Your task to perform on an android device: turn on the 12-hour format for clock Image 0: 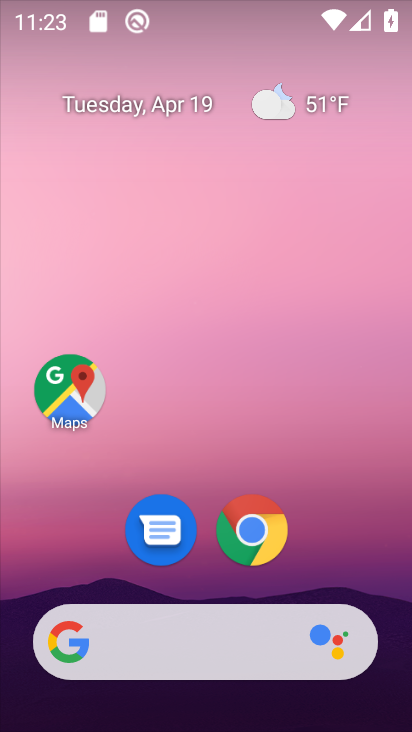
Step 0: drag from (193, 588) to (282, 84)
Your task to perform on an android device: turn on the 12-hour format for clock Image 1: 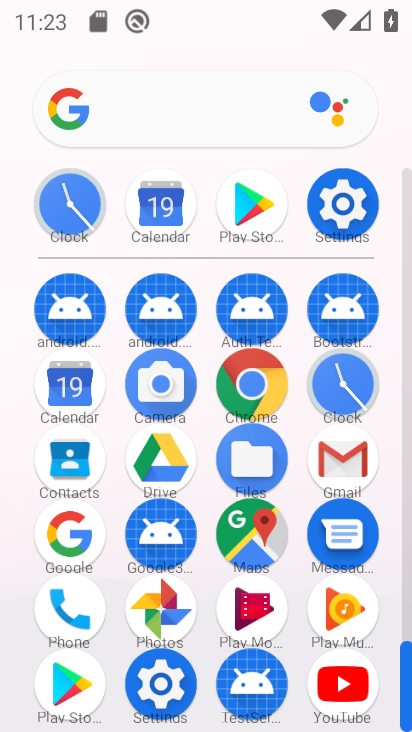
Step 1: click (344, 384)
Your task to perform on an android device: turn on the 12-hour format for clock Image 2: 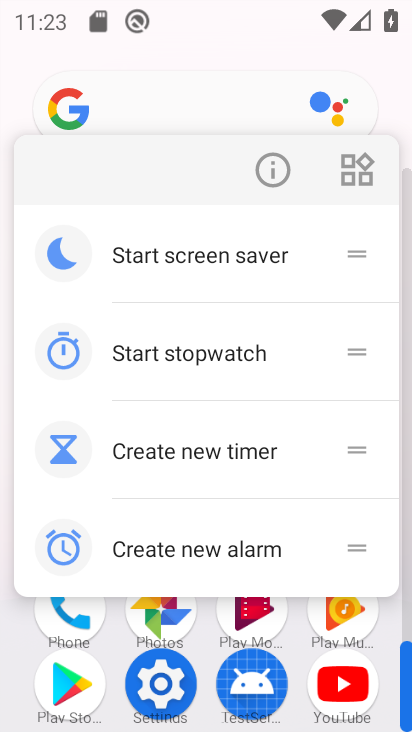
Step 2: drag from (200, 604) to (269, 374)
Your task to perform on an android device: turn on the 12-hour format for clock Image 3: 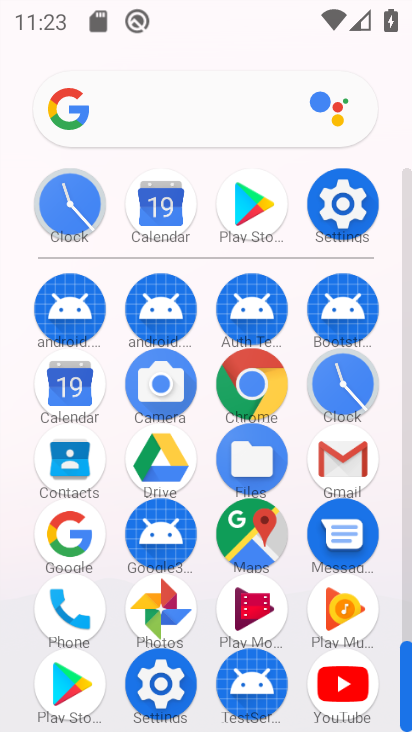
Step 3: click (340, 383)
Your task to perform on an android device: turn on the 12-hour format for clock Image 4: 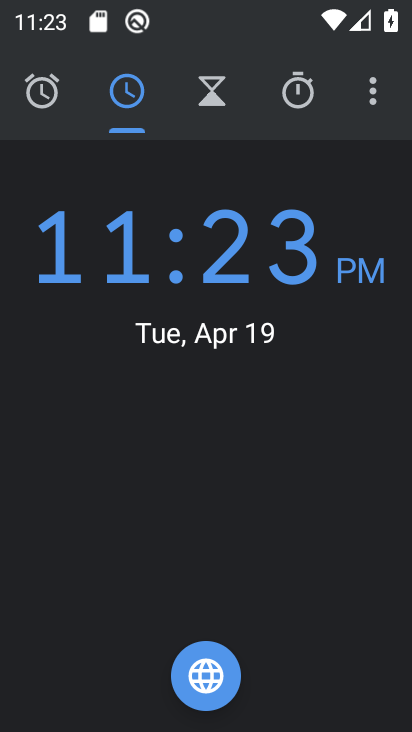
Step 4: click (373, 94)
Your task to perform on an android device: turn on the 12-hour format for clock Image 5: 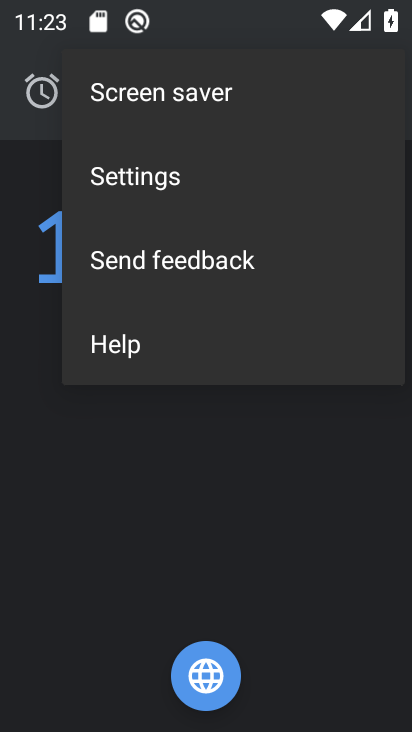
Step 5: click (162, 174)
Your task to perform on an android device: turn on the 12-hour format for clock Image 6: 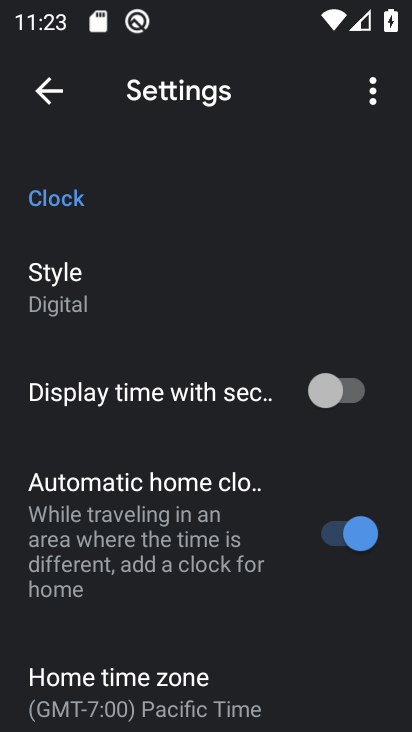
Step 6: drag from (195, 613) to (327, 207)
Your task to perform on an android device: turn on the 12-hour format for clock Image 7: 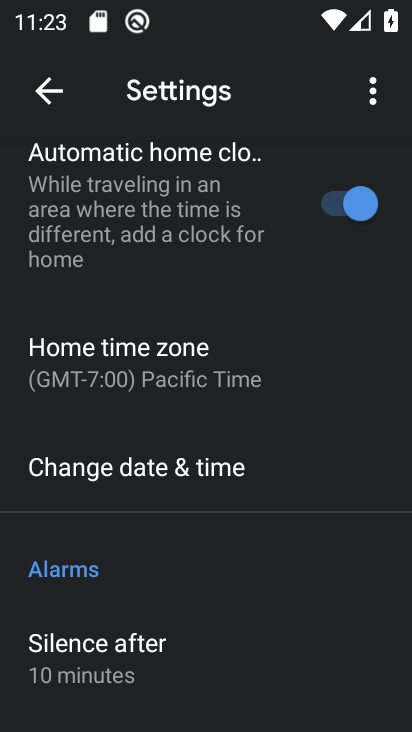
Step 7: click (198, 473)
Your task to perform on an android device: turn on the 12-hour format for clock Image 8: 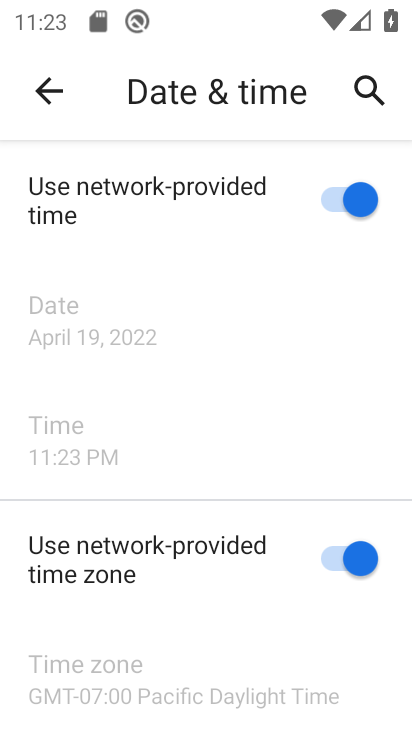
Step 8: task complete